Your task to perform on an android device: clear history in the chrome app Image 0: 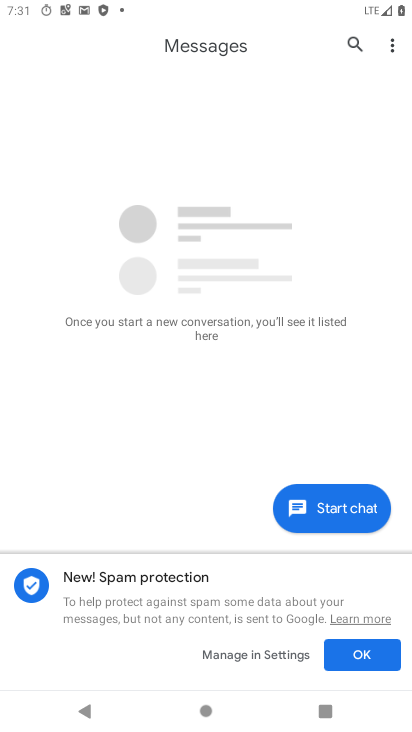
Step 0: press home button
Your task to perform on an android device: clear history in the chrome app Image 1: 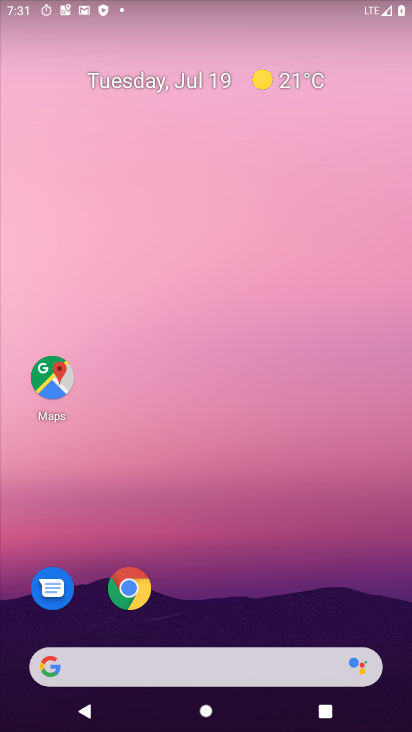
Step 1: drag from (281, 613) to (258, 113)
Your task to perform on an android device: clear history in the chrome app Image 2: 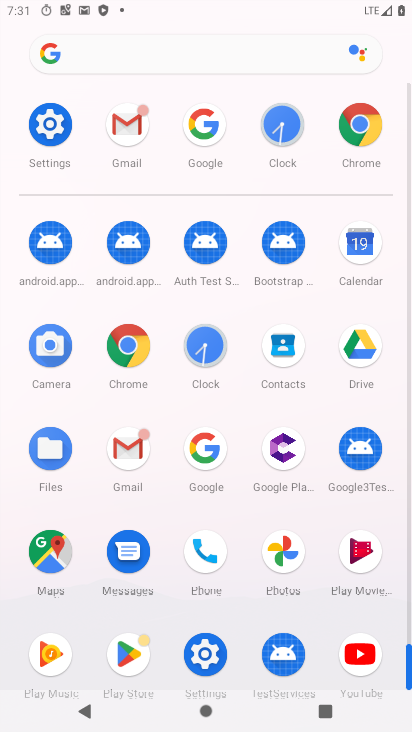
Step 2: click (132, 352)
Your task to perform on an android device: clear history in the chrome app Image 3: 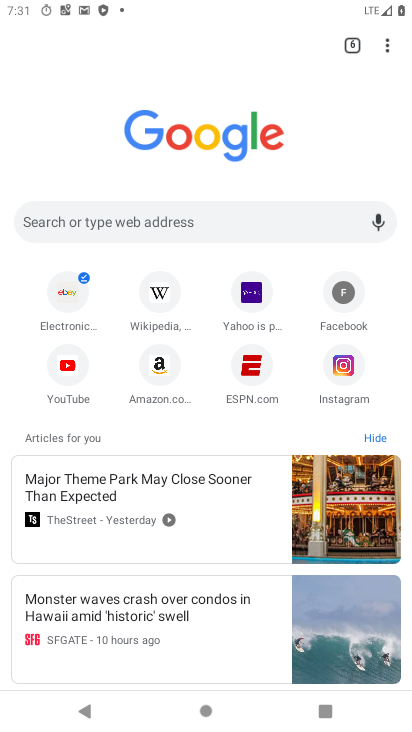
Step 3: click (392, 50)
Your task to perform on an android device: clear history in the chrome app Image 4: 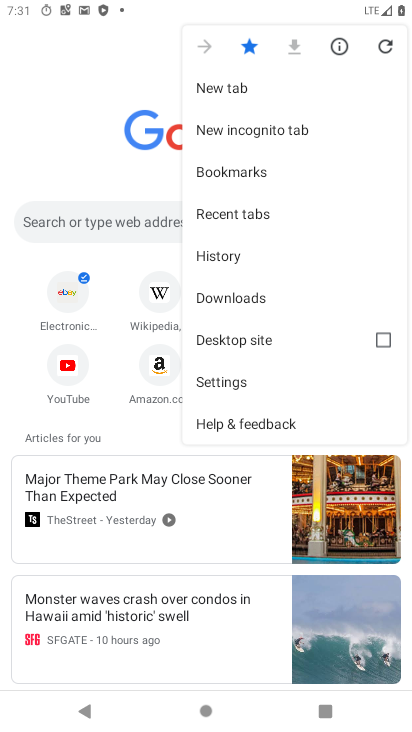
Step 4: click (230, 263)
Your task to perform on an android device: clear history in the chrome app Image 5: 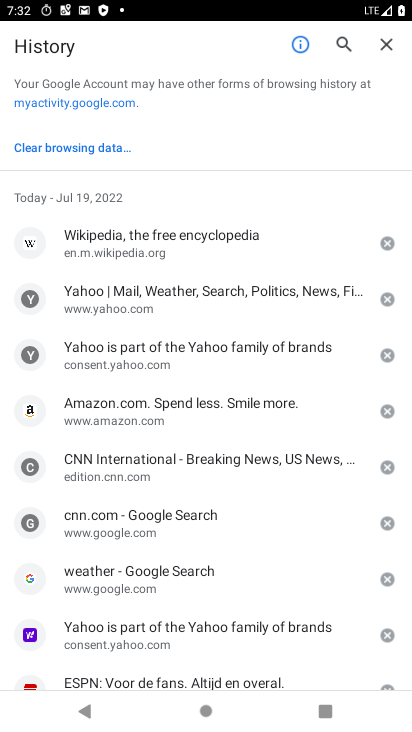
Step 5: click (93, 155)
Your task to perform on an android device: clear history in the chrome app Image 6: 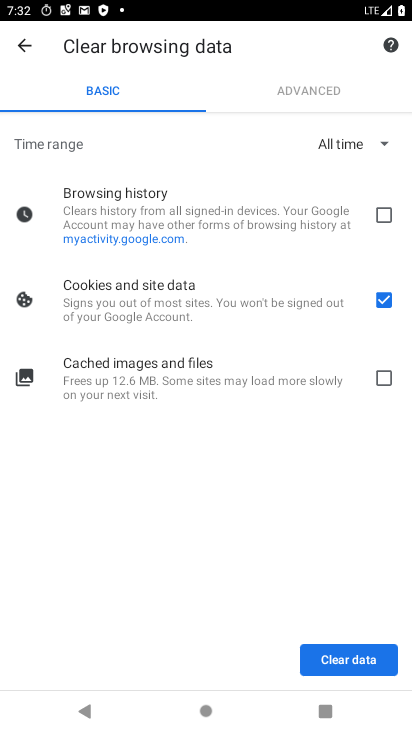
Step 6: click (338, 661)
Your task to perform on an android device: clear history in the chrome app Image 7: 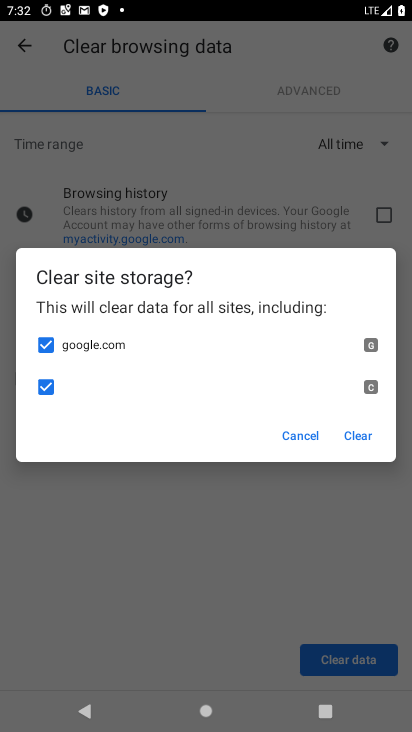
Step 7: click (359, 439)
Your task to perform on an android device: clear history in the chrome app Image 8: 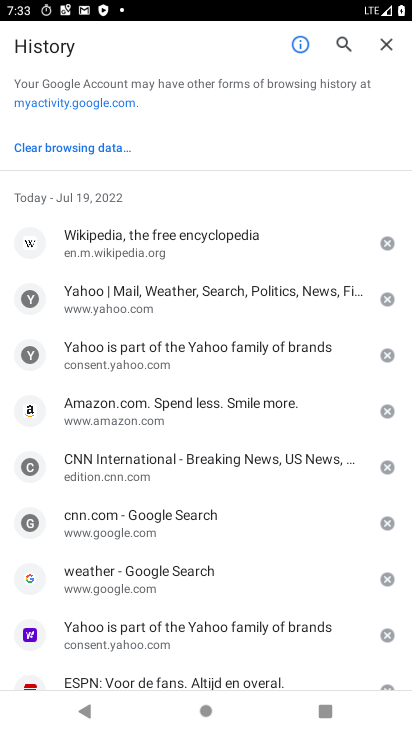
Step 8: click (92, 142)
Your task to perform on an android device: clear history in the chrome app Image 9: 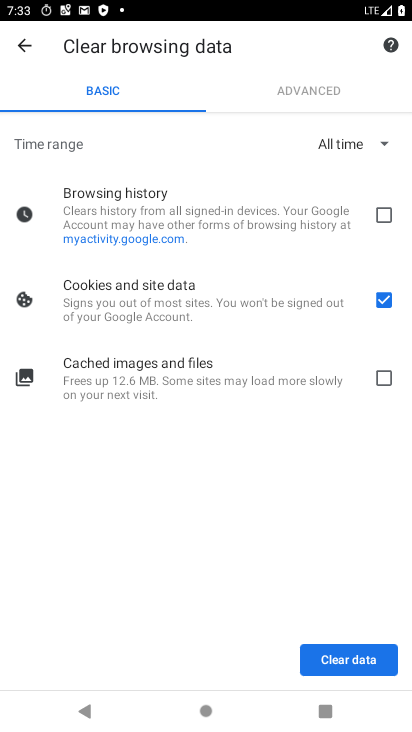
Step 9: click (390, 210)
Your task to perform on an android device: clear history in the chrome app Image 10: 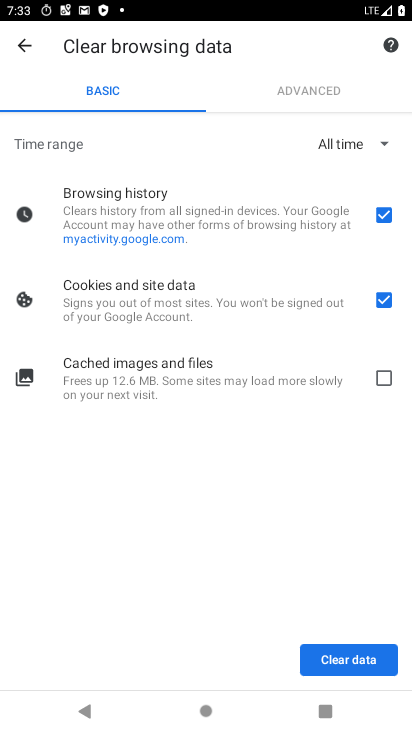
Step 10: click (374, 384)
Your task to perform on an android device: clear history in the chrome app Image 11: 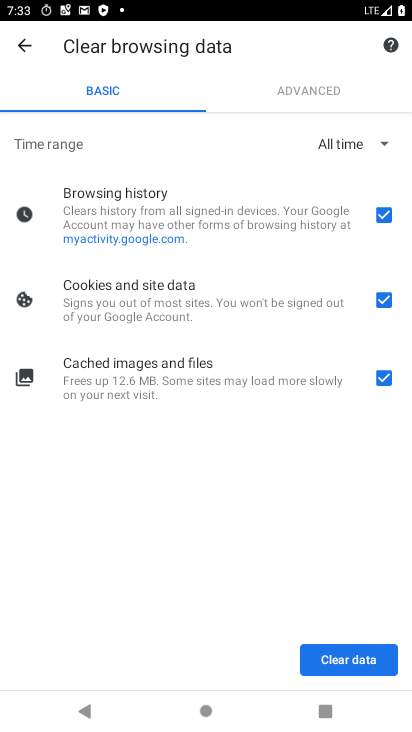
Step 11: click (343, 668)
Your task to perform on an android device: clear history in the chrome app Image 12: 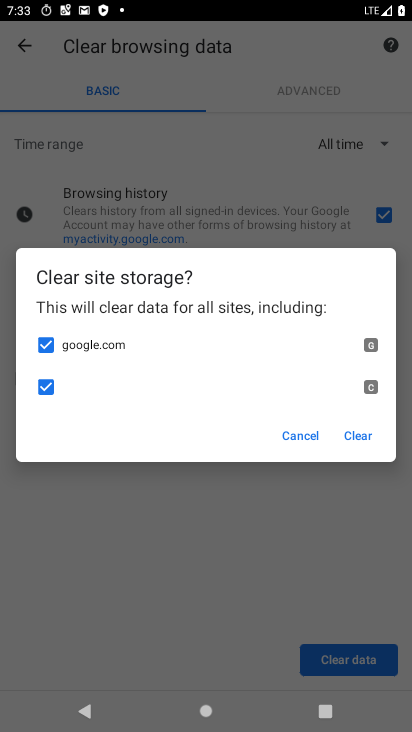
Step 12: click (365, 437)
Your task to perform on an android device: clear history in the chrome app Image 13: 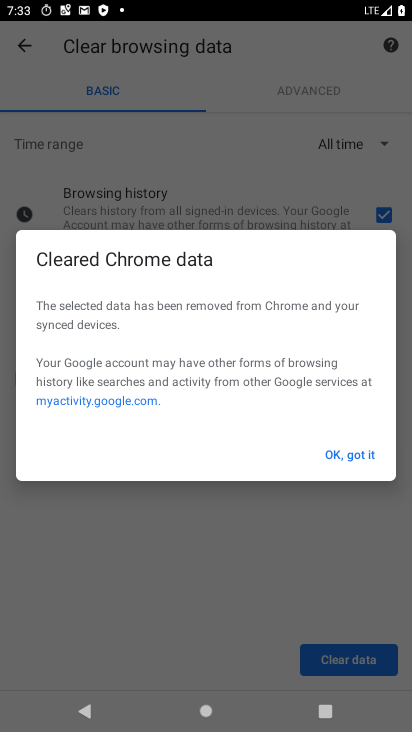
Step 13: click (363, 447)
Your task to perform on an android device: clear history in the chrome app Image 14: 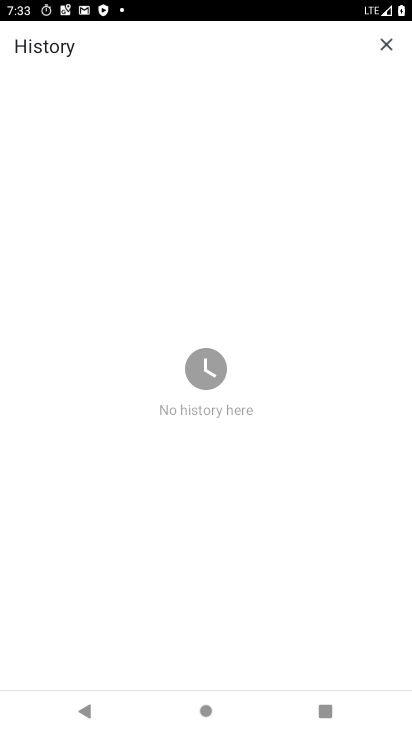
Step 14: task complete